Your task to perform on an android device: Open Chrome and go to settings Image 0: 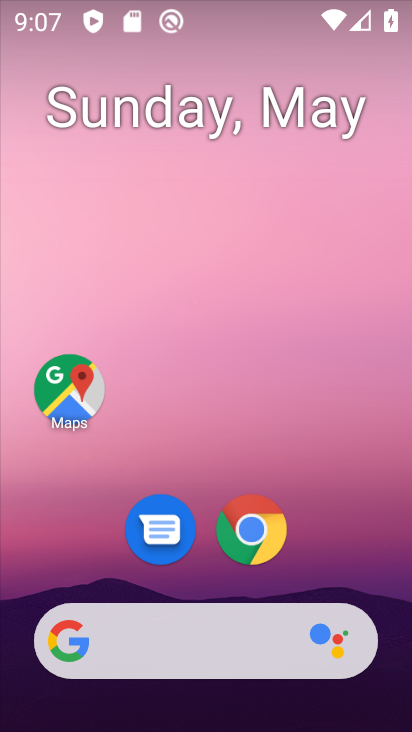
Step 0: click (248, 530)
Your task to perform on an android device: Open Chrome and go to settings Image 1: 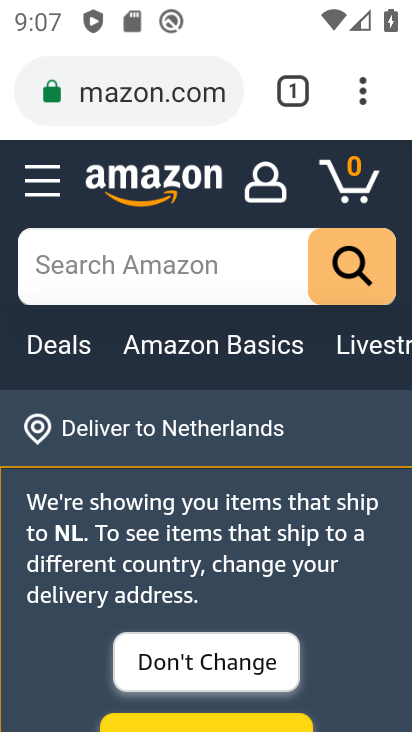
Step 1: task complete